Your task to perform on an android device: allow notifications from all sites in the chrome app Image 0: 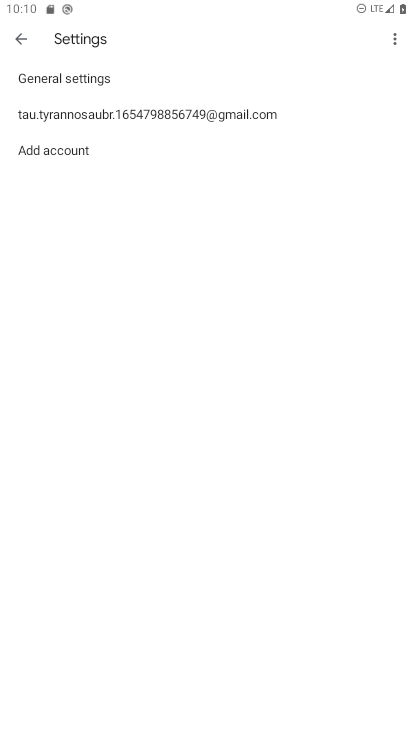
Step 0: press home button
Your task to perform on an android device: allow notifications from all sites in the chrome app Image 1: 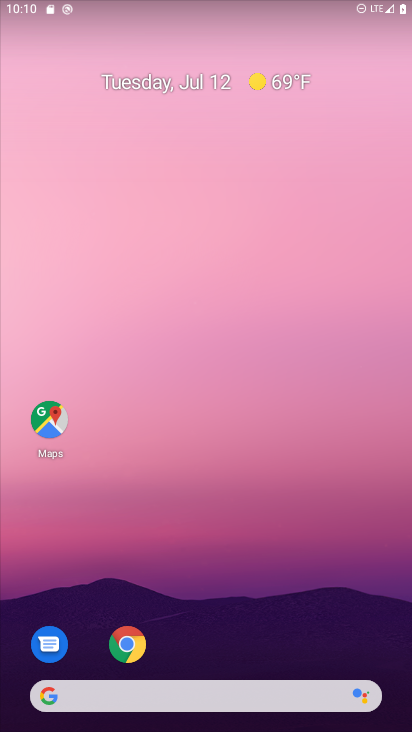
Step 1: click (122, 638)
Your task to perform on an android device: allow notifications from all sites in the chrome app Image 2: 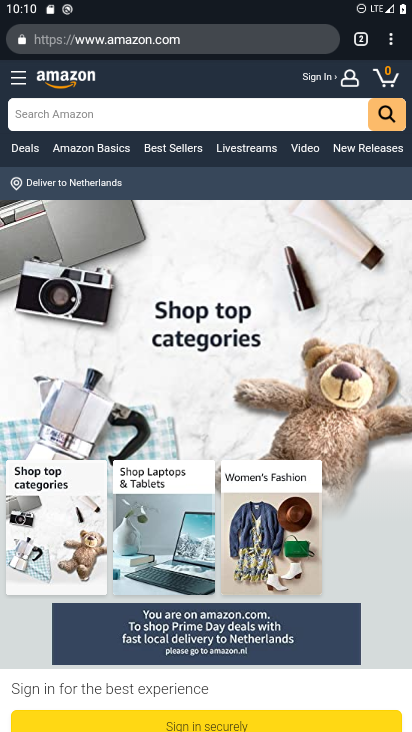
Step 2: click (395, 36)
Your task to perform on an android device: allow notifications from all sites in the chrome app Image 3: 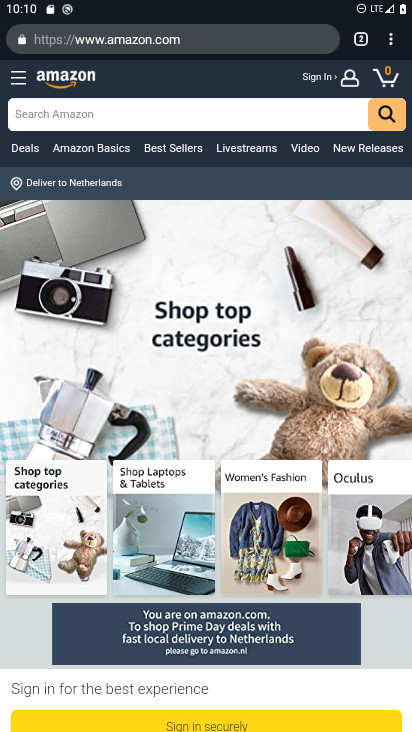
Step 3: click (395, 41)
Your task to perform on an android device: allow notifications from all sites in the chrome app Image 4: 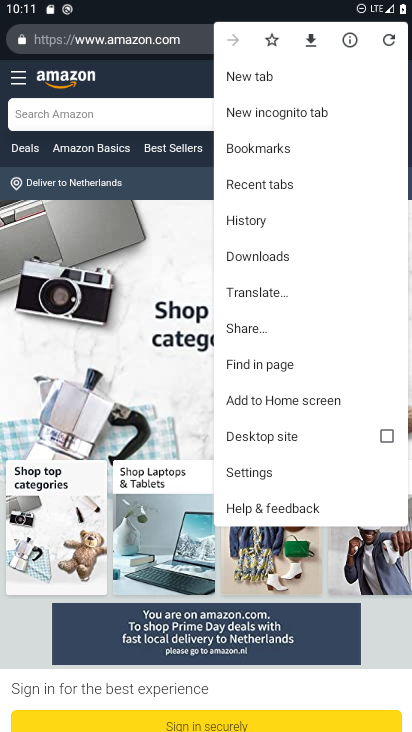
Step 4: click (272, 470)
Your task to perform on an android device: allow notifications from all sites in the chrome app Image 5: 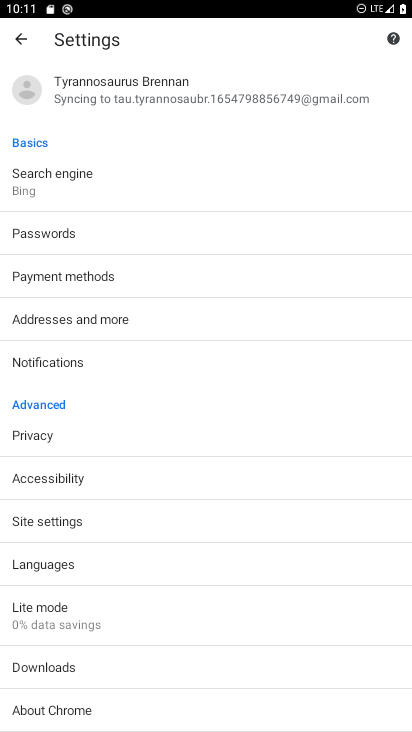
Step 5: click (95, 519)
Your task to perform on an android device: allow notifications from all sites in the chrome app Image 6: 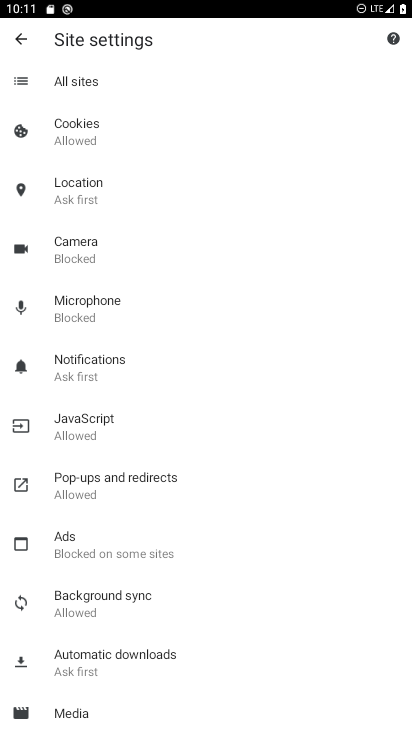
Step 6: click (95, 85)
Your task to perform on an android device: allow notifications from all sites in the chrome app Image 7: 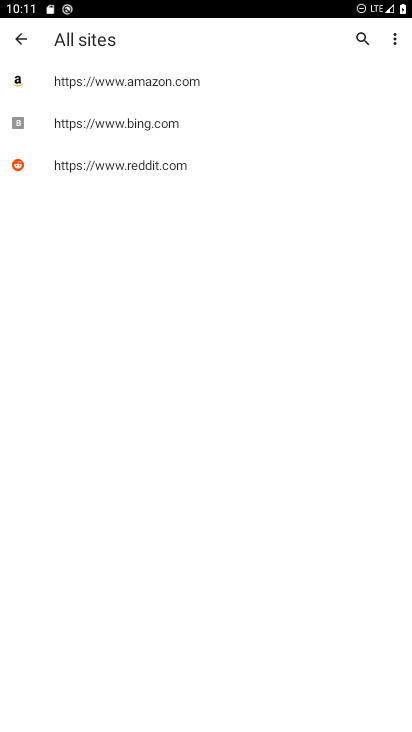
Step 7: click (165, 123)
Your task to perform on an android device: allow notifications from all sites in the chrome app Image 8: 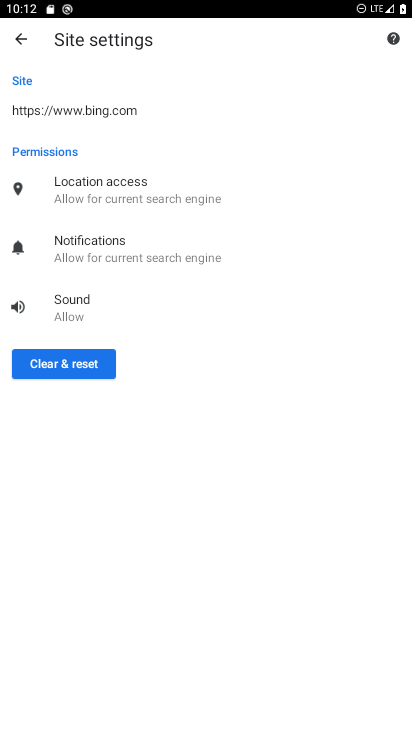
Step 8: task complete